Your task to perform on an android device: What's on my calendar today? Image 0: 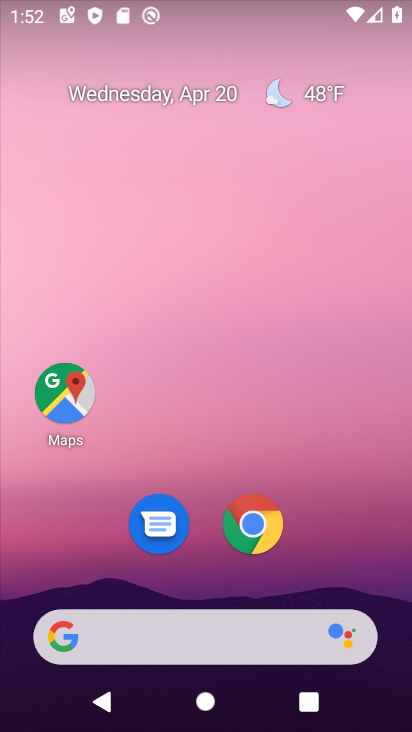
Step 0: drag from (343, 532) to (358, 71)
Your task to perform on an android device: What's on my calendar today? Image 1: 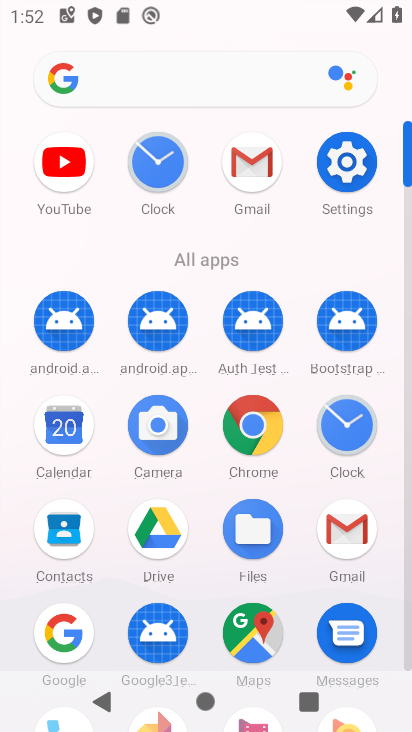
Step 1: click (74, 424)
Your task to perform on an android device: What's on my calendar today? Image 2: 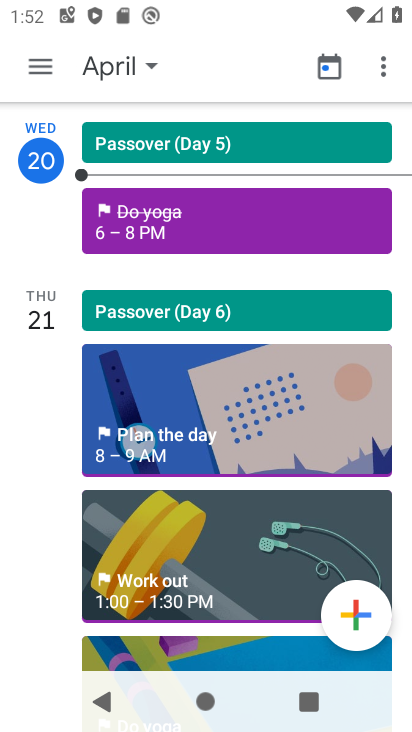
Step 2: click (40, 64)
Your task to perform on an android device: What's on my calendar today? Image 3: 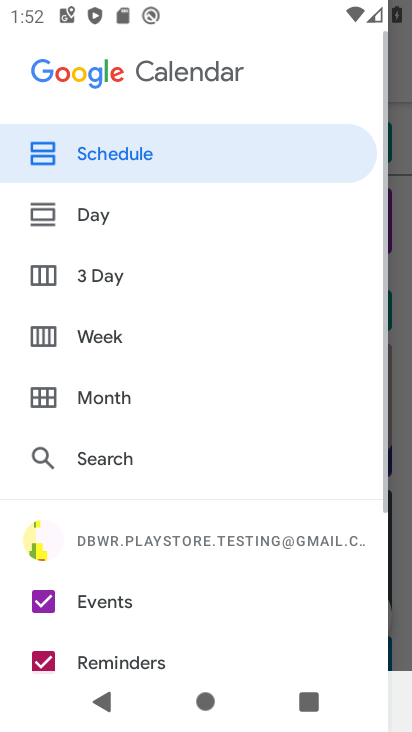
Step 3: click (88, 195)
Your task to perform on an android device: What's on my calendar today? Image 4: 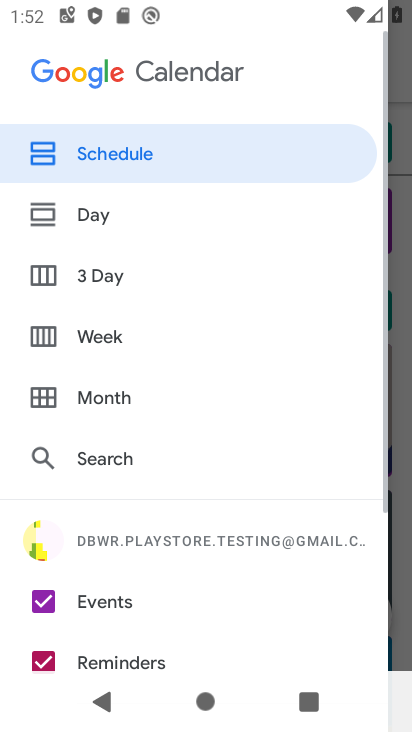
Step 4: click (83, 210)
Your task to perform on an android device: What's on my calendar today? Image 5: 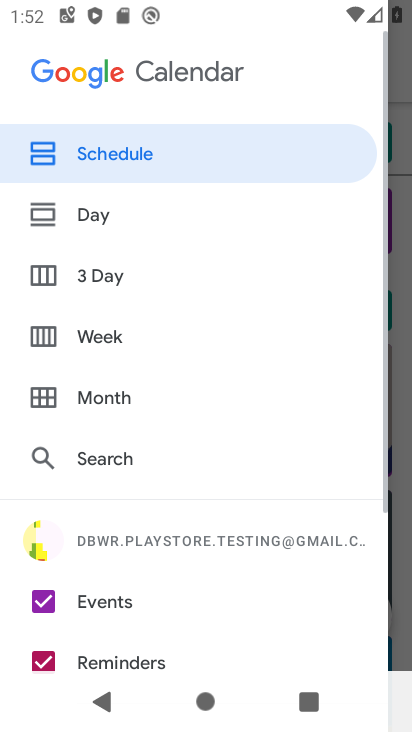
Step 5: click (83, 210)
Your task to perform on an android device: What's on my calendar today? Image 6: 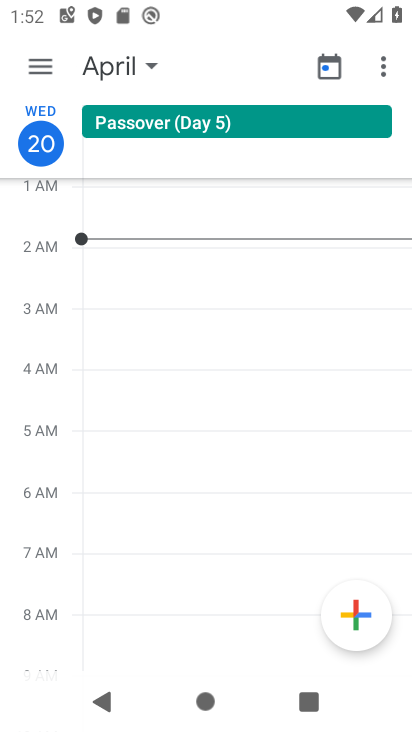
Step 6: drag from (174, 532) to (204, 193)
Your task to perform on an android device: What's on my calendar today? Image 7: 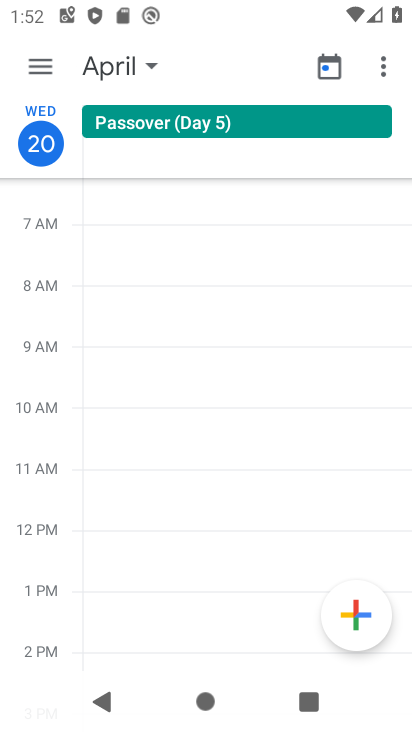
Step 7: drag from (160, 579) to (171, 254)
Your task to perform on an android device: What's on my calendar today? Image 8: 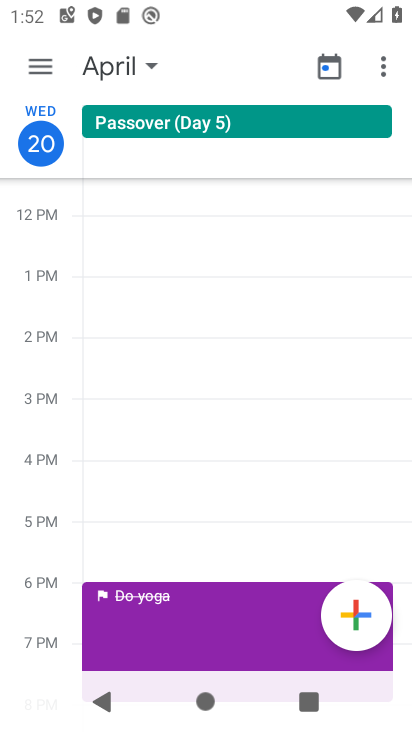
Step 8: drag from (205, 489) to (201, 154)
Your task to perform on an android device: What's on my calendar today? Image 9: 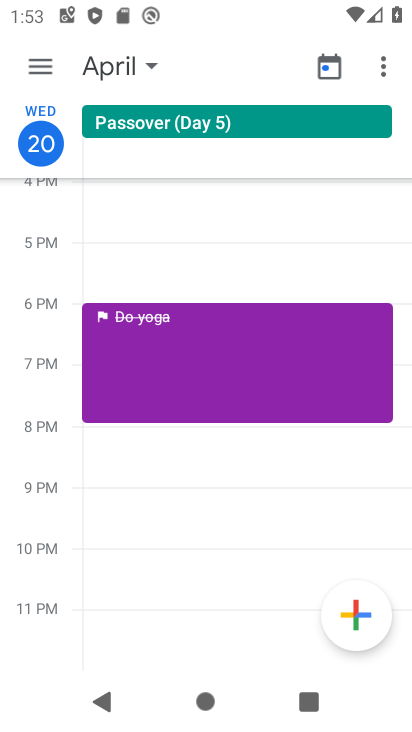
Step 9: click (196, 331)
Your task to perform on an android device: What's on my calendar today? Image 10: 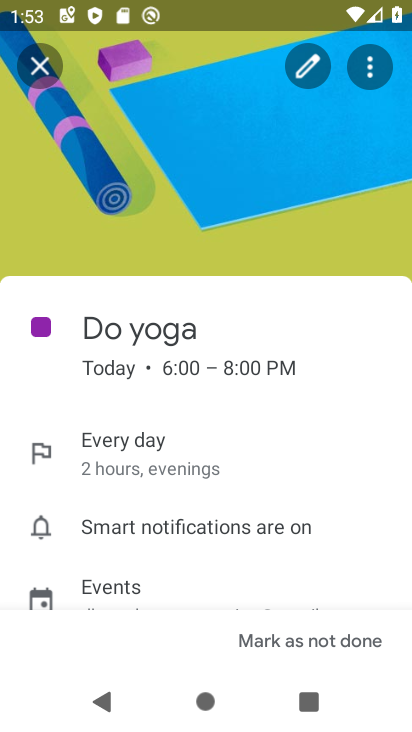
Step 10: task complete